Your task to perform on an android device: refresh tabs in the chrome app Image 0: 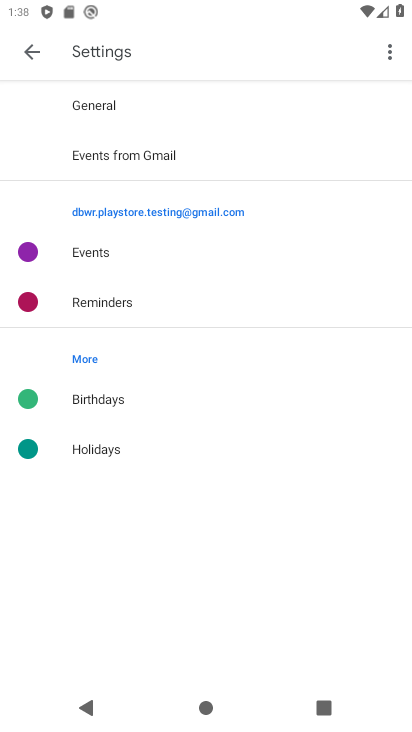
Step 0: press home button
Your task to perform on an android device: refresh tabs in the chrome app Image 1: 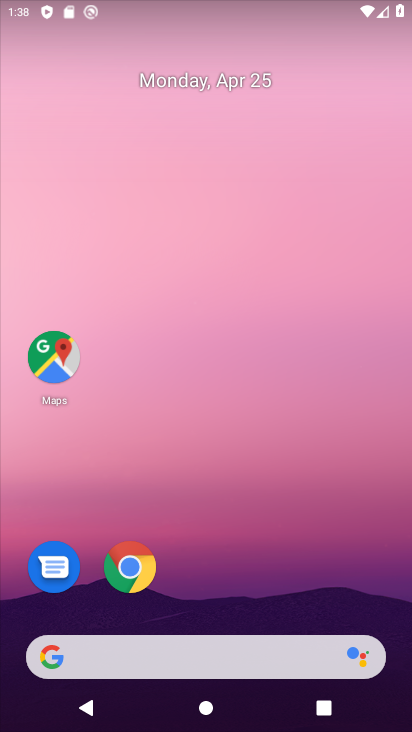
Step 1: click (130, 565)
Your task to perform on an android device: refresh tabs in the chrome app Image 2: 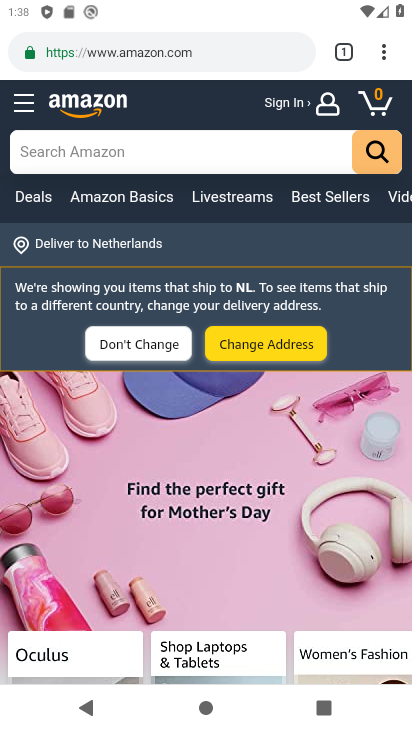
Step 2: click (382, 55)
Your task to perform on an android device: refresh tabs in the chrome app Image 3: 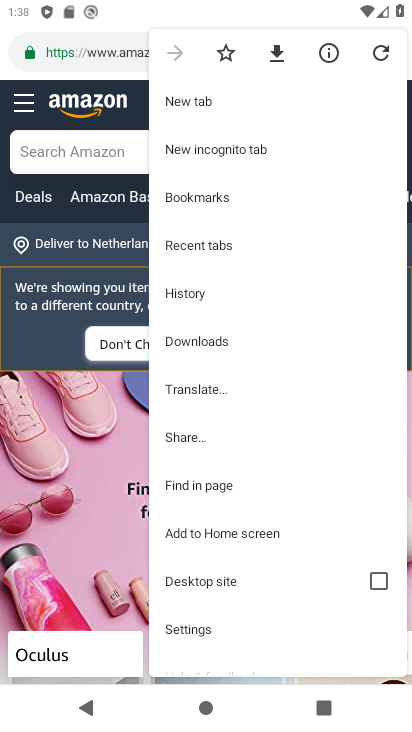
Step 3: click (375, 47)
Your task to perform on an android device: refresh tabs in the chrome app Image 4: 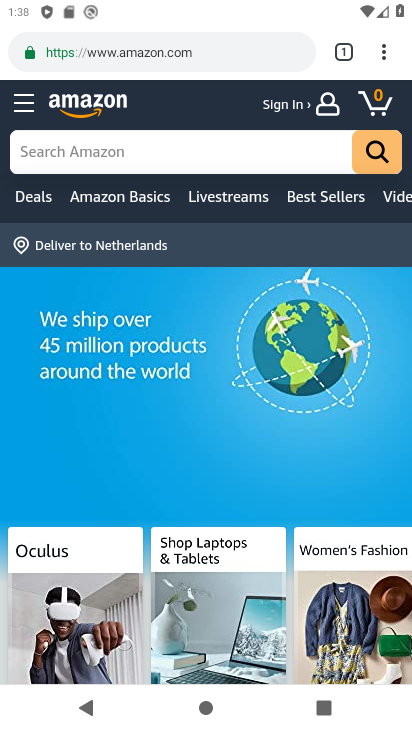
Step 4: task complete